Your task to perform on an android device: What's the weather? Image 0: 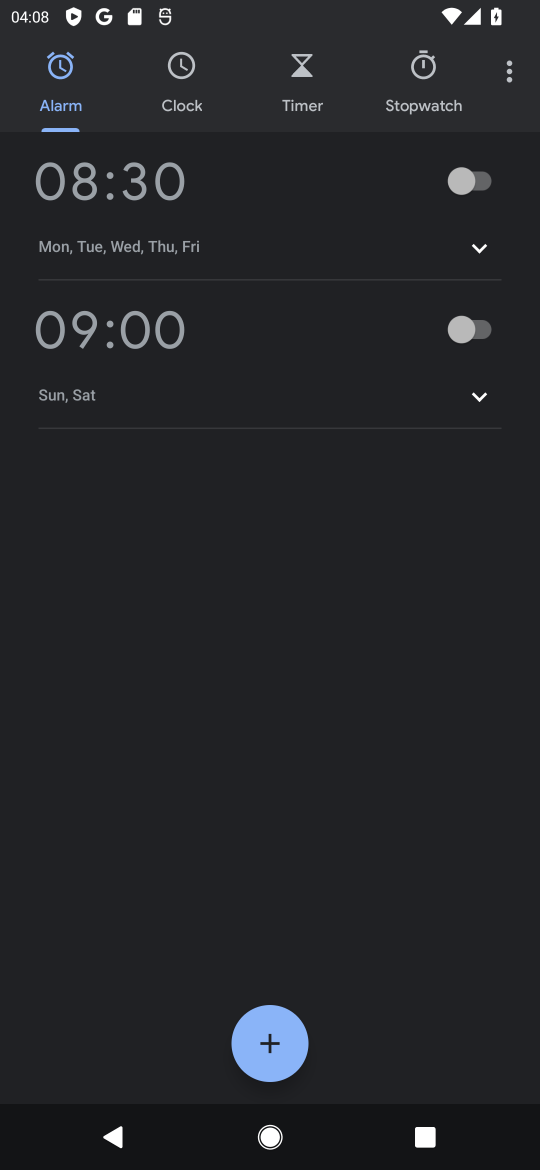
Step 0: press home button
Your task to perform on an android device: What's the weather? Image 1: 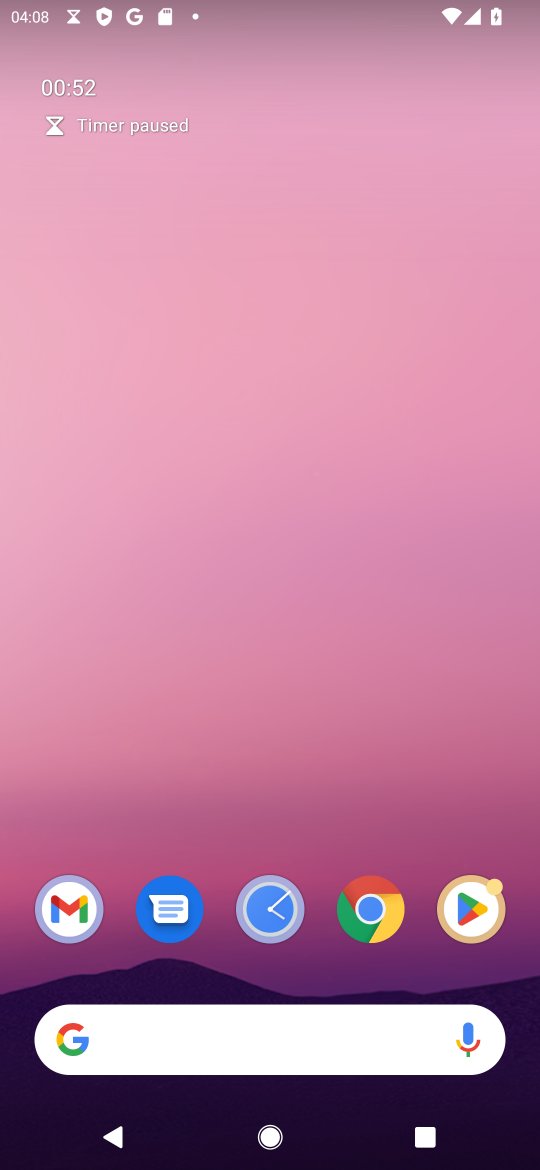
Step 1: click (184, 1050)
Your task to perform on an android device: What's the weather? Image 2: 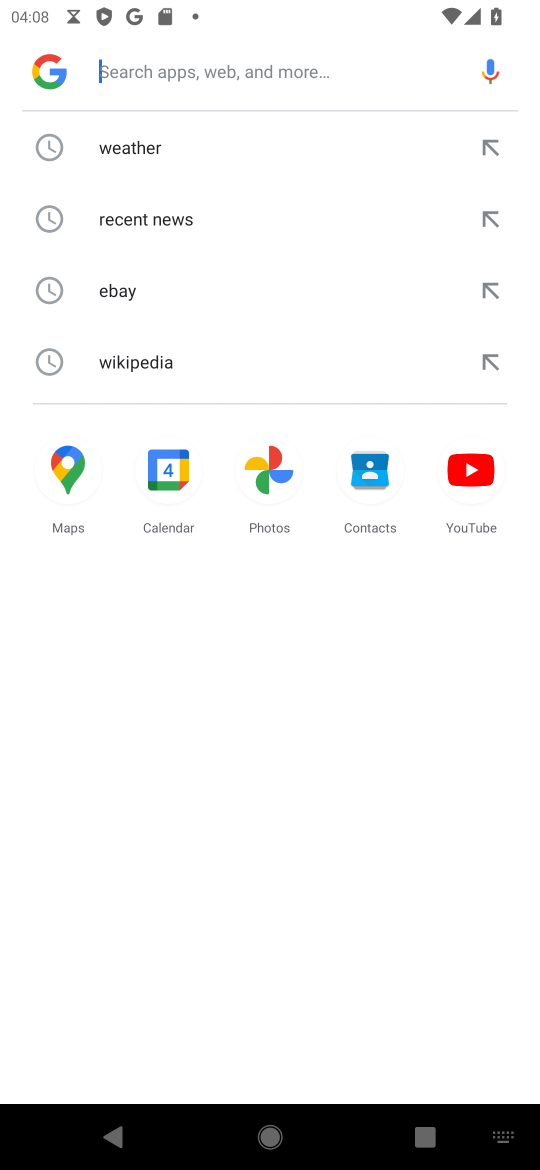
Step 2: click (131, 137)
Your task to perform on an android device: What's the weather? Image 3: 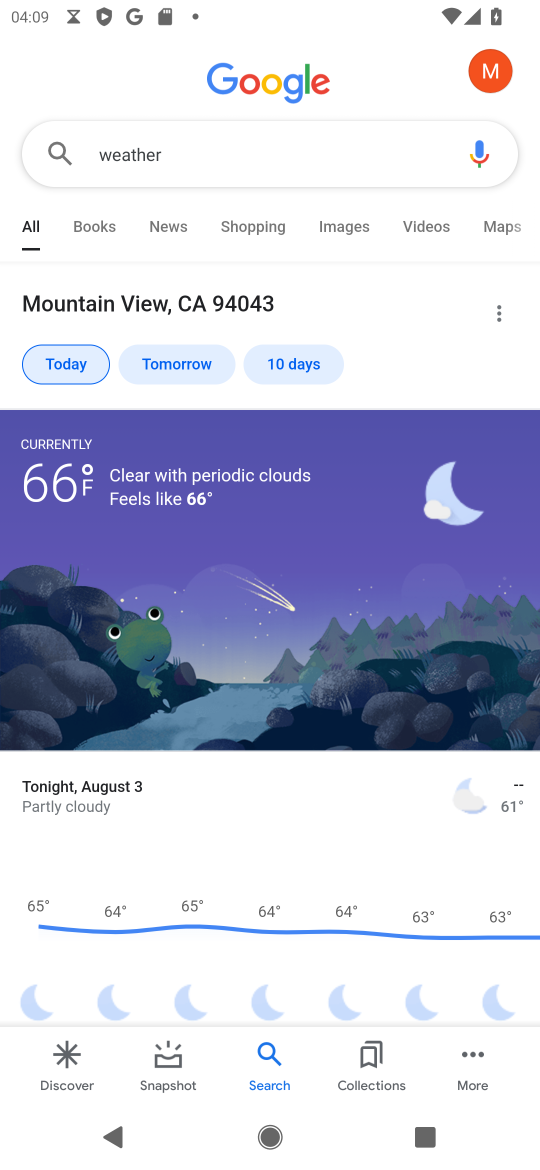
Step 3: task complete